Your task to perform on an android device: turn on the 24-hour format for clock Image 0: 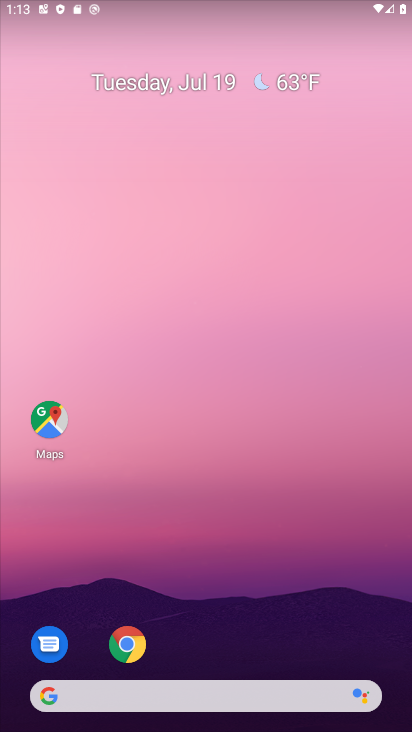
Step 0: drag from (183, 723) to (183, 108)
Your task to perform on an android device: turn on the 24-hour format for clock Image 1: 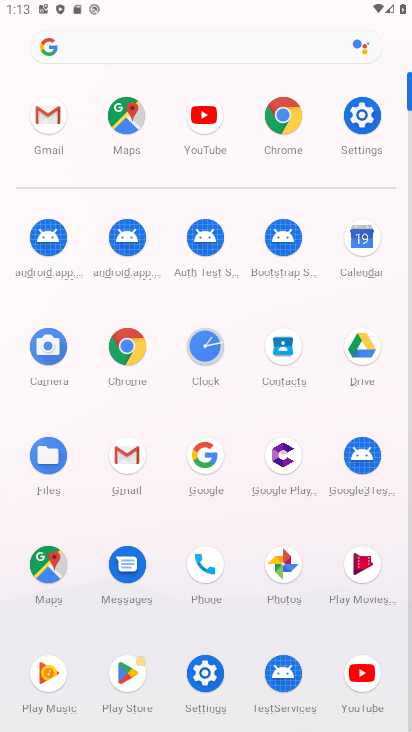
Step 1: click (201, 343)
Your task to perform on an android device: turn on the 24-hour format for clock Image 2: 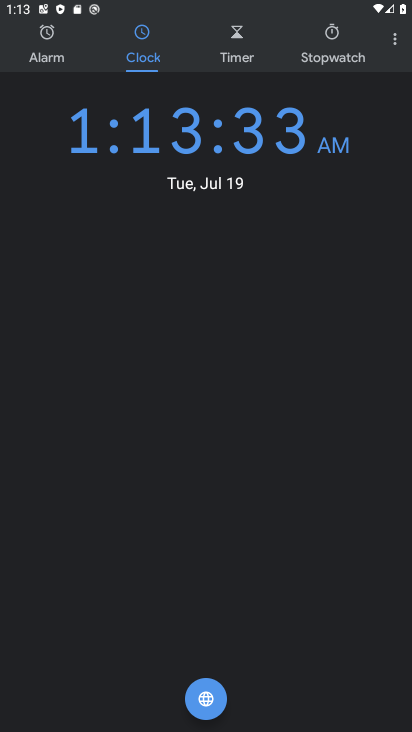
Step 2: click (395, 45)
Your task to perform on an android device: turn on the 24-hour format for clock Image 3: 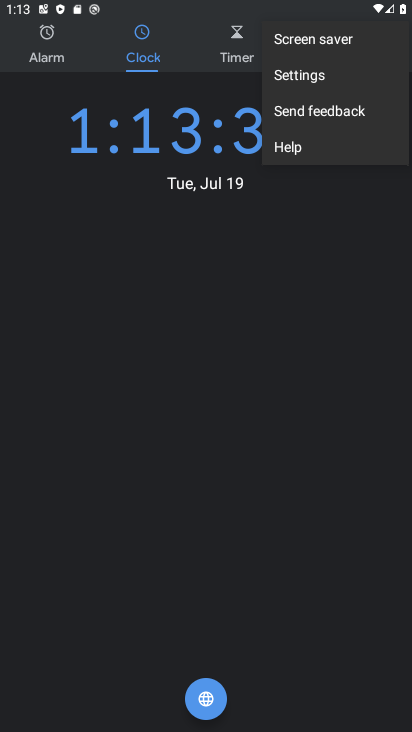
Step 3: click (305, 71)
Your task to perform on an android device: turn on the 24-hour format for clock Image 4: 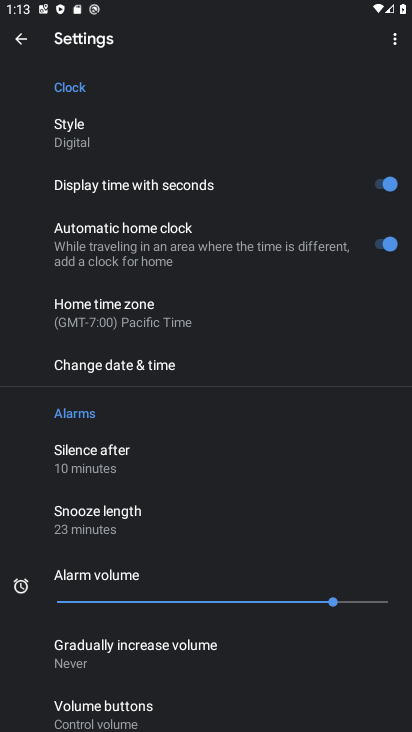
Step 4: click (136, 359)
Your task to perform on an android device: turn on the 24-hour format for clock Image 5: 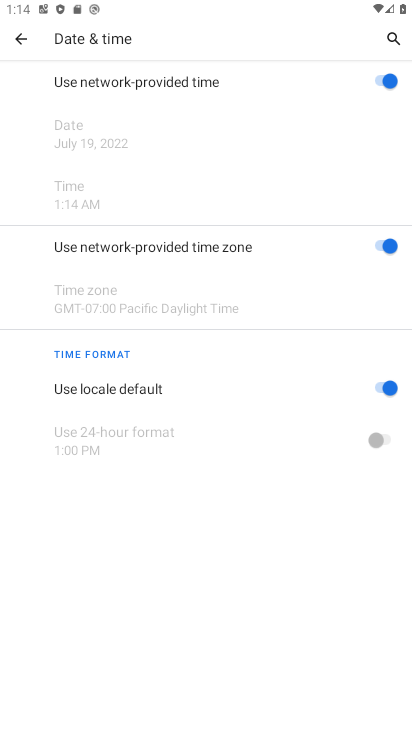
Step 5: click (378, 385)
Your task to perform on an android device: turn on the 24-hour format for clock Image 6: 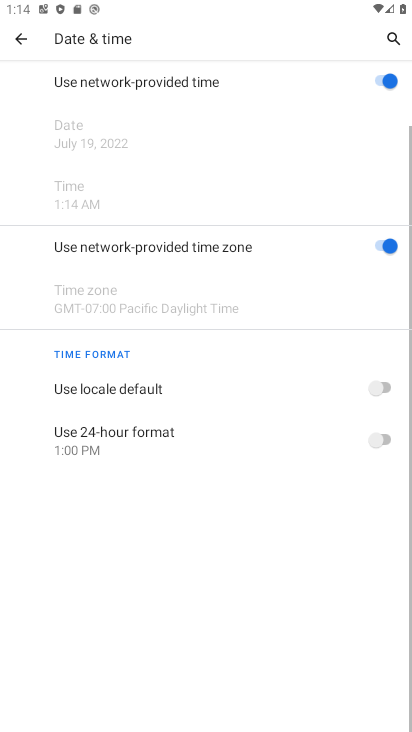
Step 6: click (380, 440)
Your task to perform on an android device: turn on the 24-hour format for clock Image 7: 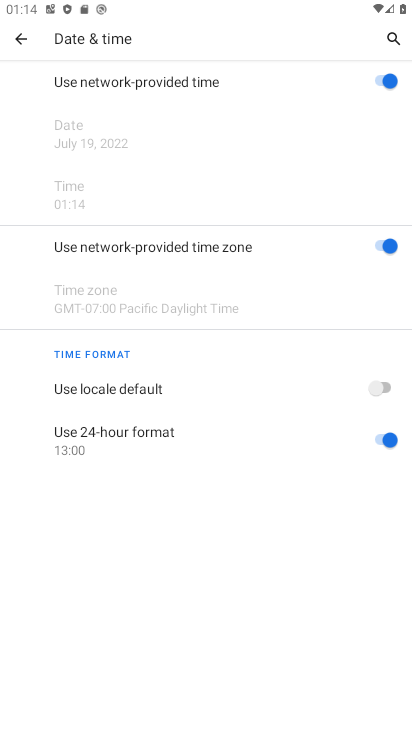
Step 7: task complete